Your task to perform on an android device: toggle improve location accuracy Image 0: 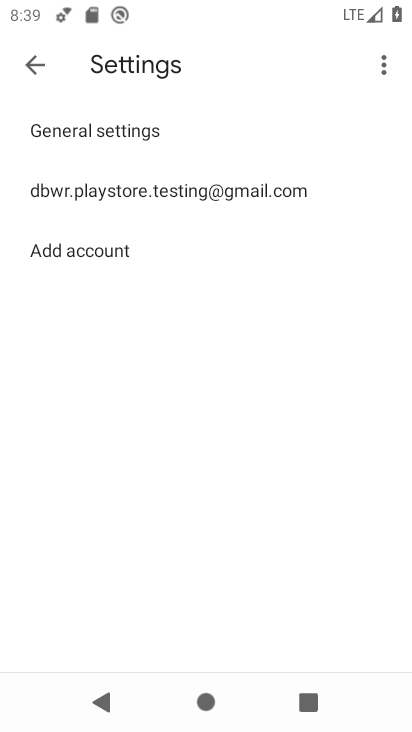
Step 0: press home button
Your task to perform on an android device: toggle improve location accuracy Image 1: 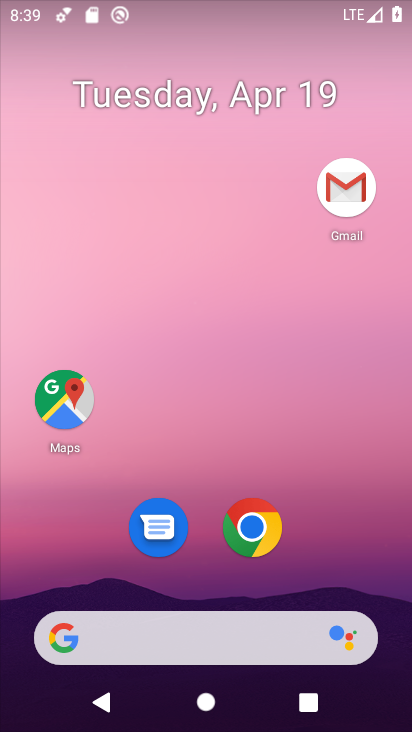
Step 1: drag from (360, 539) to (354, 67)
Your task to perform on an android device: toggle improve location accuracy Image 2: 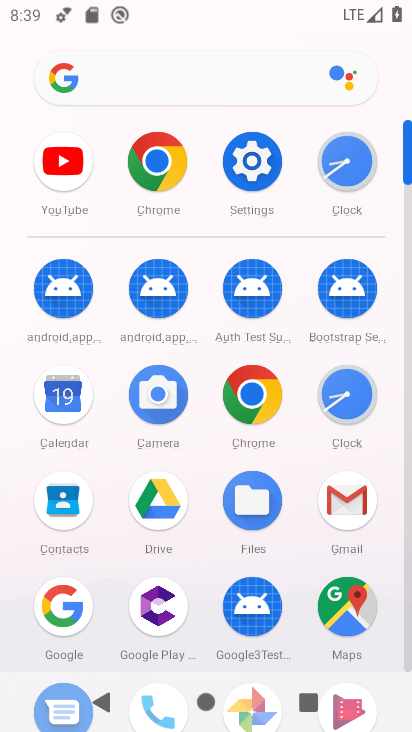
Step 2: click (263, 163)
Your task to perform on an android device: toggle improve location accuracy Image 3: 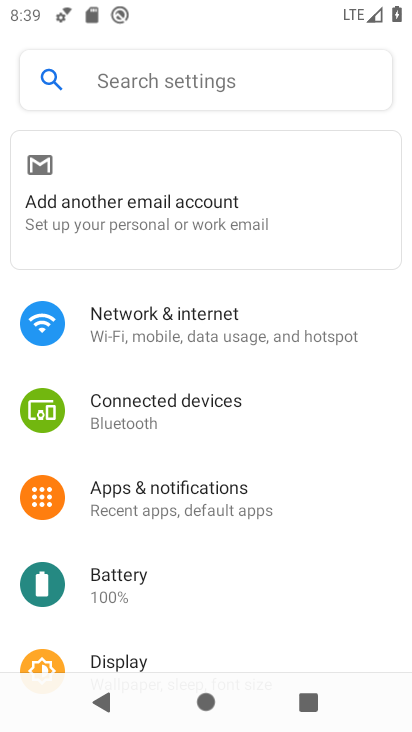
Step 3: drag from (353, 559) to (353, 183)
Your task to perform on an android device: toggle improve location accuracy Image 4: 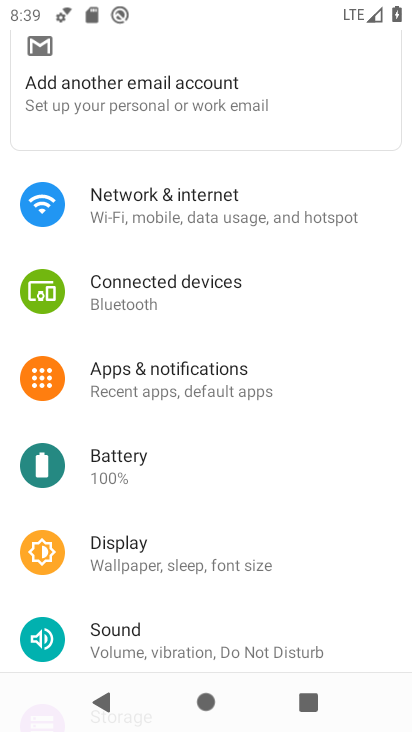
Step 4: drag from (289, 585) to (293, 264)
Your task to perform on an android device: toggle improve location accuracy Image 5: 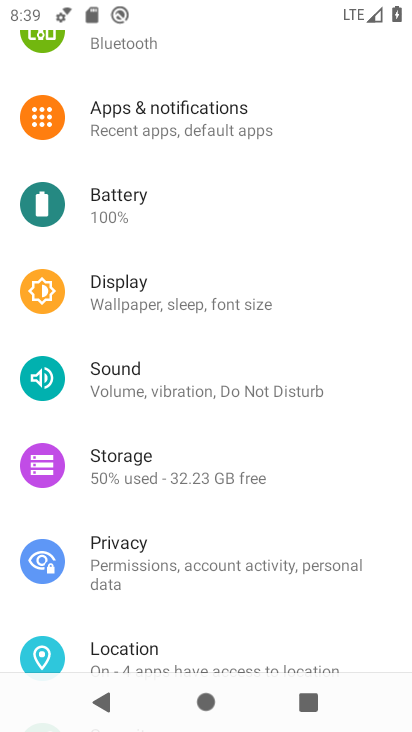
Step 5: click (220, 655)
Your task to perform on an android device: toggle improve location accuracy Image 6: 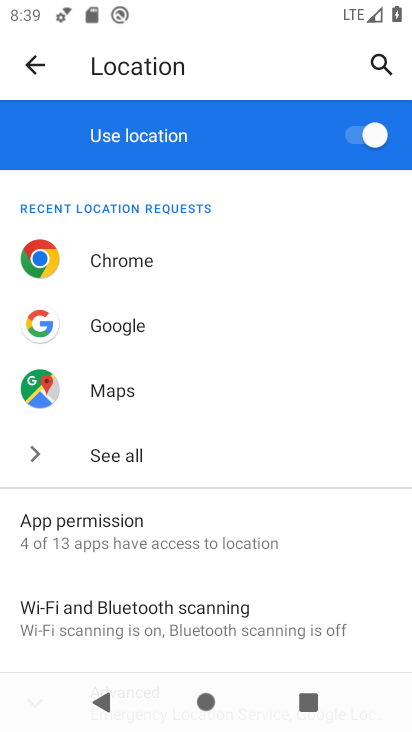
Step 6: drag from (331, 578) to (331, 357)
Your task to perform on an android device: toggle improve location accuracy Image 7: 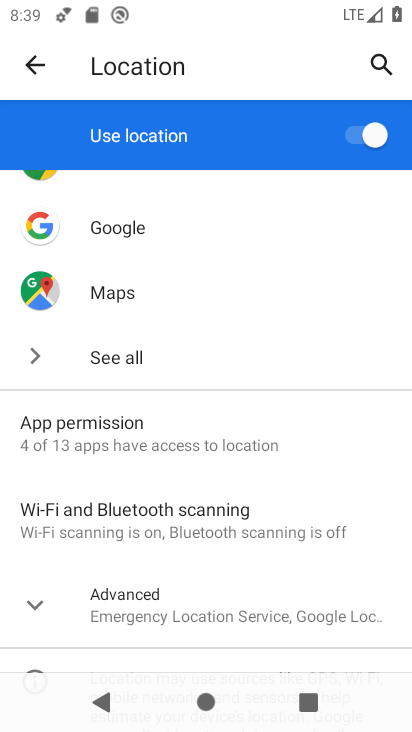
Step 7: click (271, 614)
Your task to perform on an android device: toggle improve location accuracy Image 8: 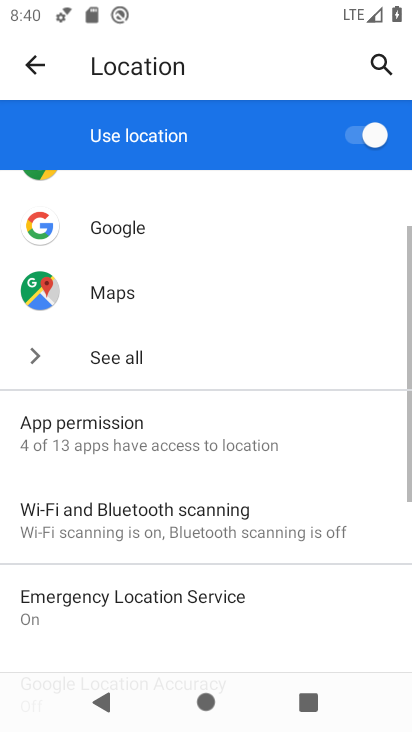
Step 8: drag from (329, 618) to (320, 214)
Your task to perform on an android device: toggle improve location accuracy Image 9: 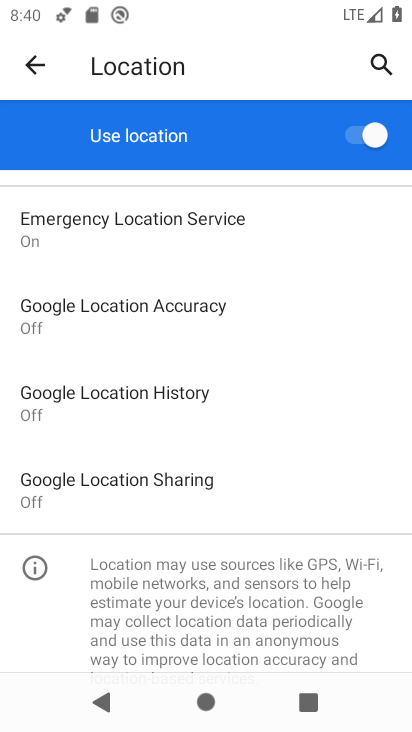
Step 9: click (150, 319)
Your task to perform on an android device: toggle improve location accuracy Image 10: 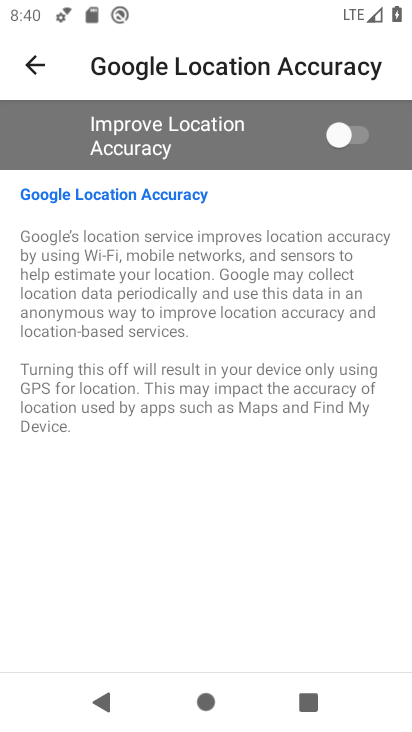
Step 10: click (352, 133)
Your task to perform on an android device: toggle improve location accuracy Image 11: 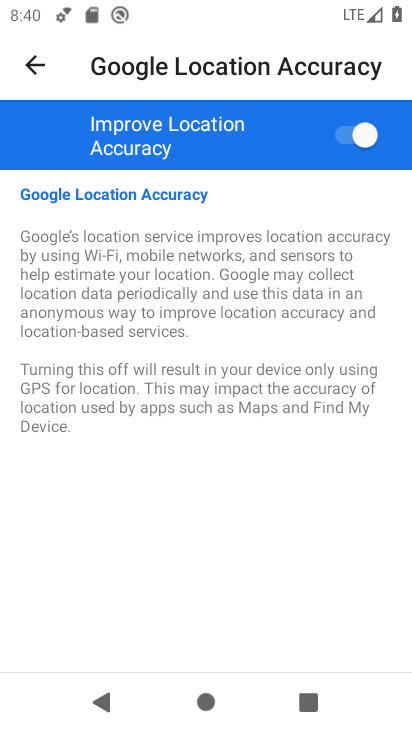
Step 11: task complete